Your task to perform on an android device: turn off data saver in the chrome app Image 0: 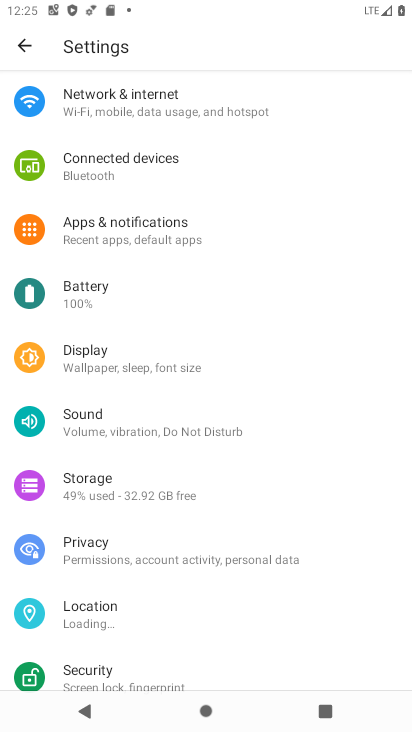
Step 0: press home button
Your task to perform on an android device: turn off data saver in the chrome app Image 1: 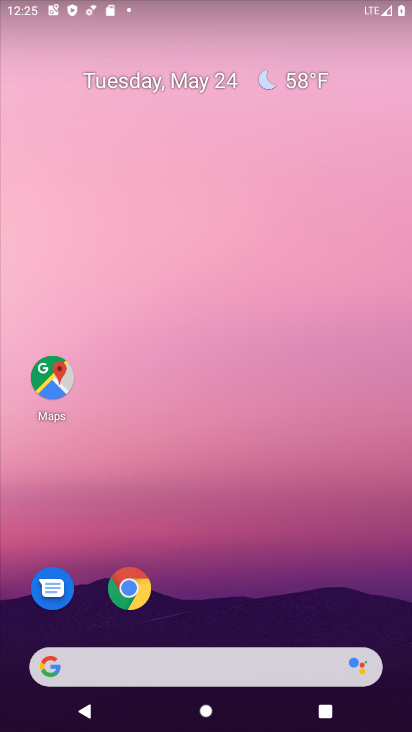
Step 1: click (128, 598)
Your task to perform on an android device: turn off data saver in the chrome app Image 2: 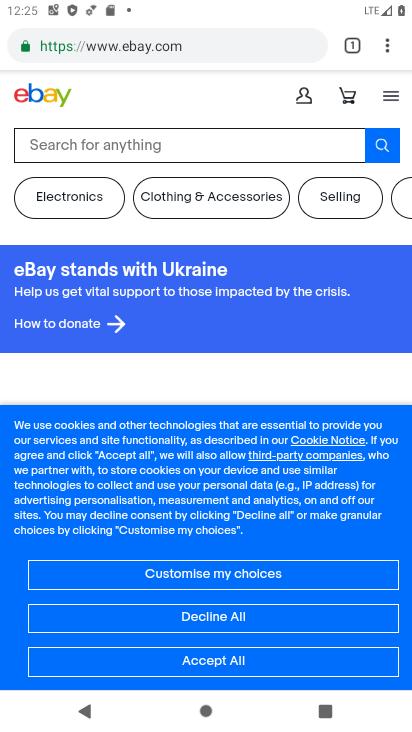
Step 2: click (388, 56)
Your task to perform on an android device: turn off data saver in the chrome app Image 3: 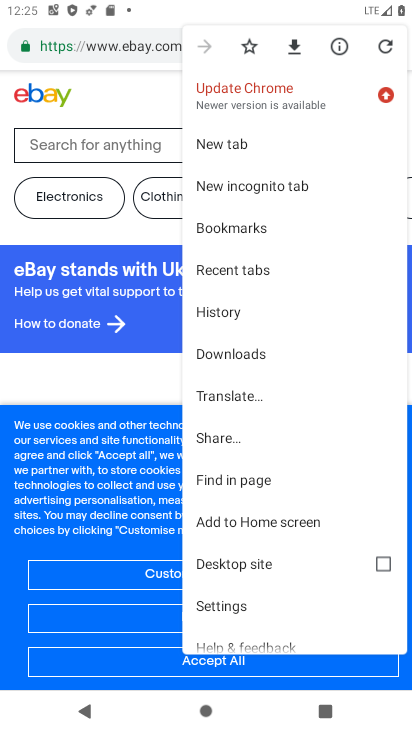
Step 3: click (219, 607)
Your task to perform on an android device: turn off data saver in the chrome app Image 4: 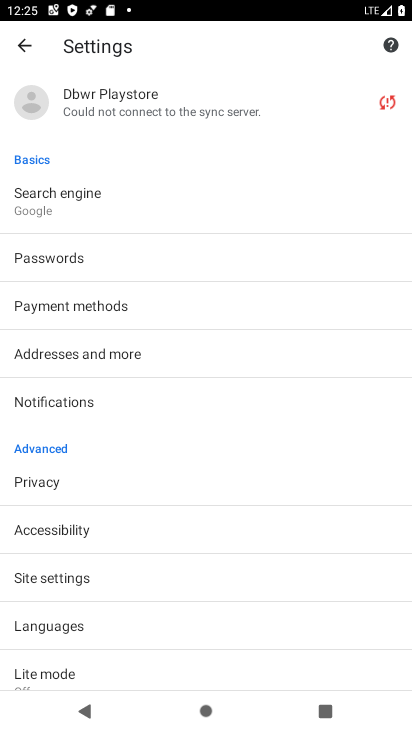
Step 4: drag from (64, 658) to (77, 534)
Your task to perform on an android device: turn off data saver in the chrome app Image 5: 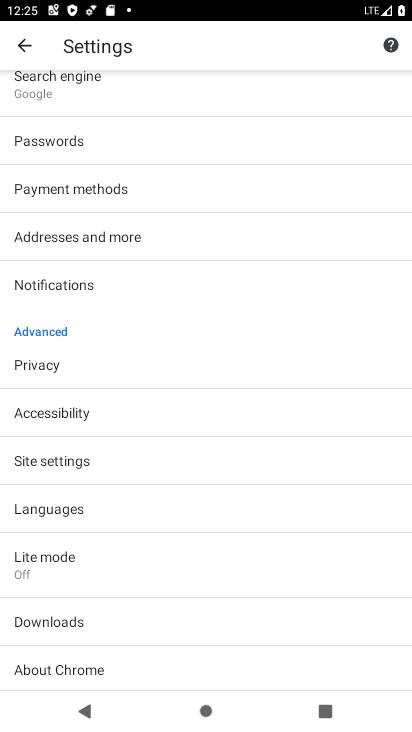
Step 5: click (45, 565)
Your task to perform on an android device: turn off data saver in the chrome app Image 6: 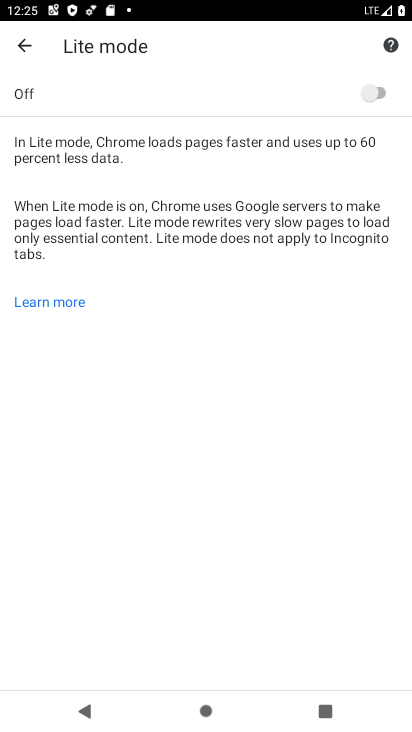
Step 6: task complete